Your task to perform on an android device: set default search engine in the chrome app Image 0: 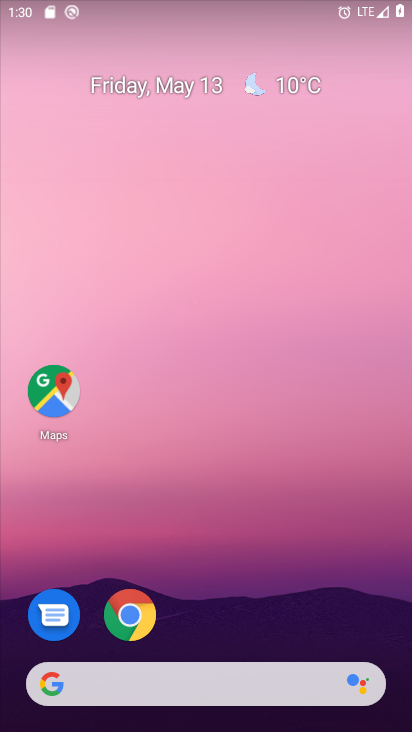
Step 0: click (141, 607)
Your task to perform on an android device: set default search engine in the chrome app Image 1: 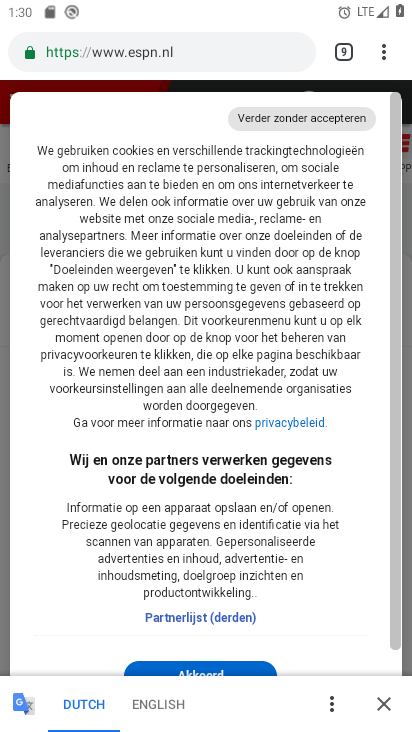
Step 1: click (382, 45)
Your task to perform on an android device: set default search engine in the chrome app Image 2: 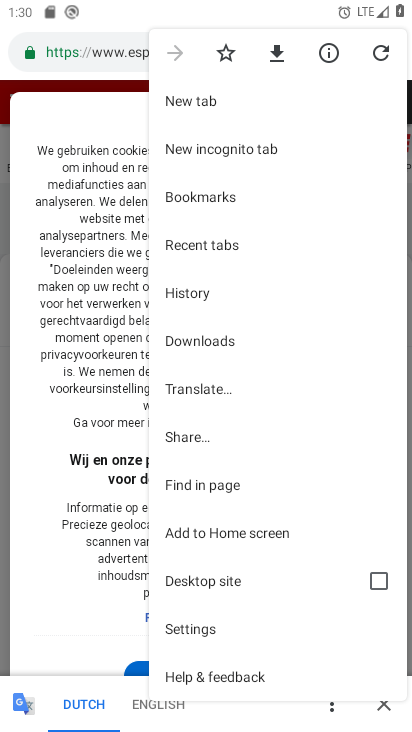
Step 2: click (287, 627)
Your task to perform on an android device: set default search engine in the chrome app Image 3: 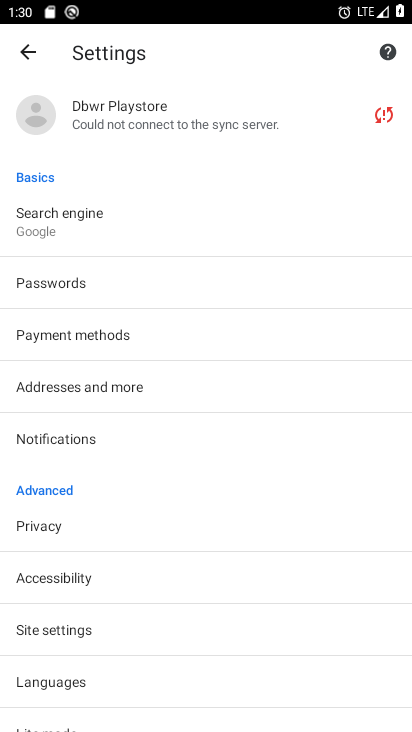
Step 3: click (224, 225)
Your task to perform on an android device: set default search engine in the chrome app Image 4: 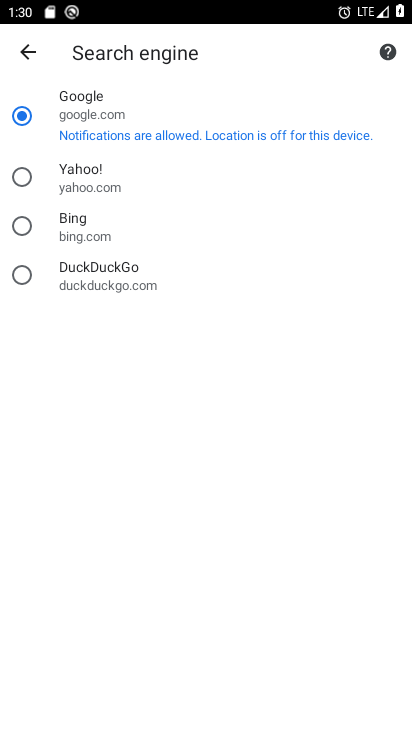
Step 4: task complete